Your task to perform on an android device: Open Google Chrome and click the shortcut for Amazon.com Image 0: 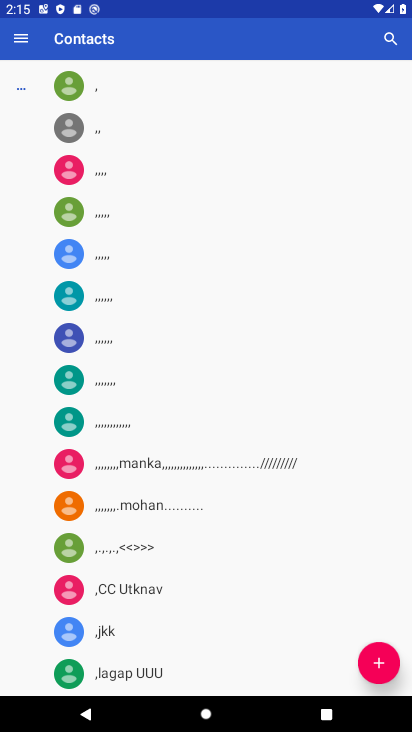
Step 0: press home button
Your task to perform on an android device: Open Google Chrome and click the shortcut for Amazon.com Image 1: 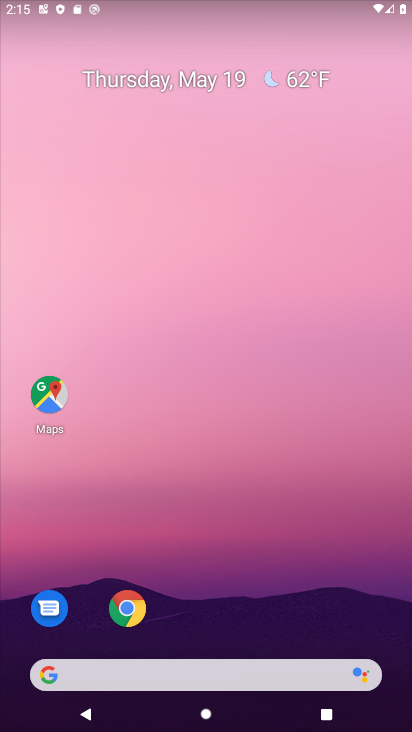
Step 1: click (139, 615)
Your task to perform on an android device: Open Google Chrome and click the shortcut for Amazon.com Image 2: 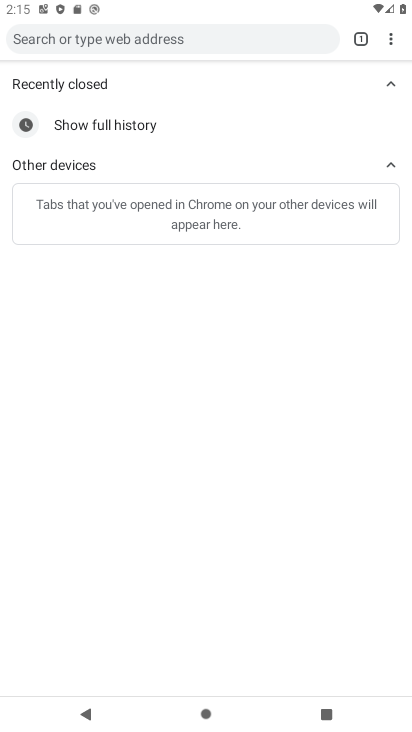
Step 2: click (356, 34)
Your task to perform on an android device: Open Google Chrome and click the shortcut for Amazon.com Image 3: 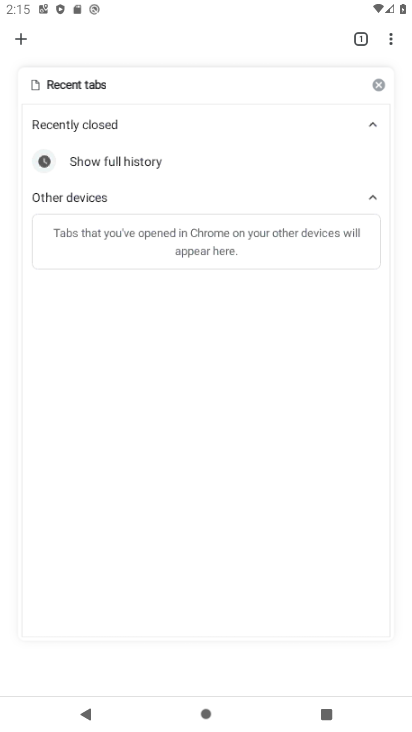
Step 3: click (15, 47)
Your task to perform on an android device: Open Google Chrome and click the shortcut for Amazon.com Image 4: 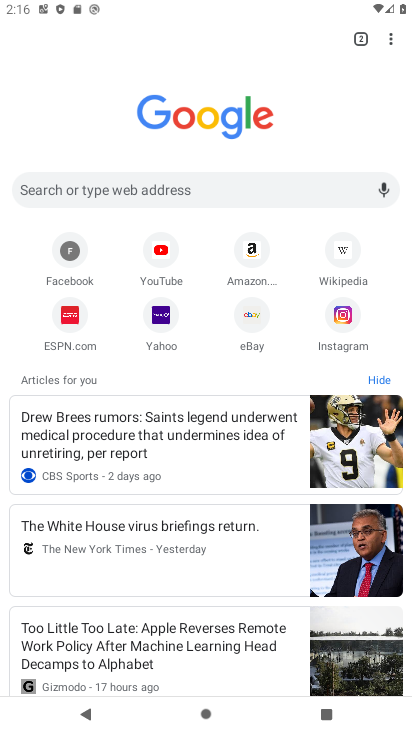
Step 4: click (262, 283)
Your task to perform on an android device: Open Google Chrome and click the shortcut for Amazon.com Image 5: 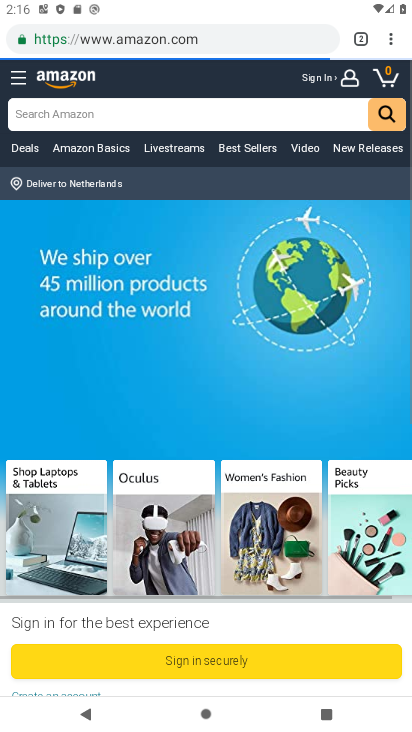
Step 5: task complete